Your task to perform on an android device: Go to Wikipedia Image 0: 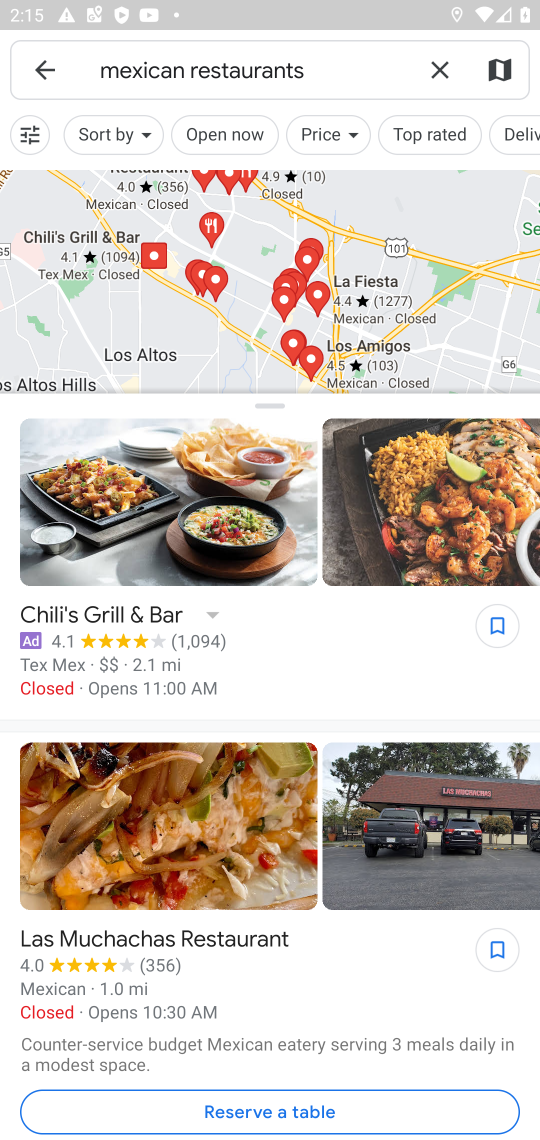
Step 0: press home button
Your task to perform on an android device: Go to Wikipedia Image 1: 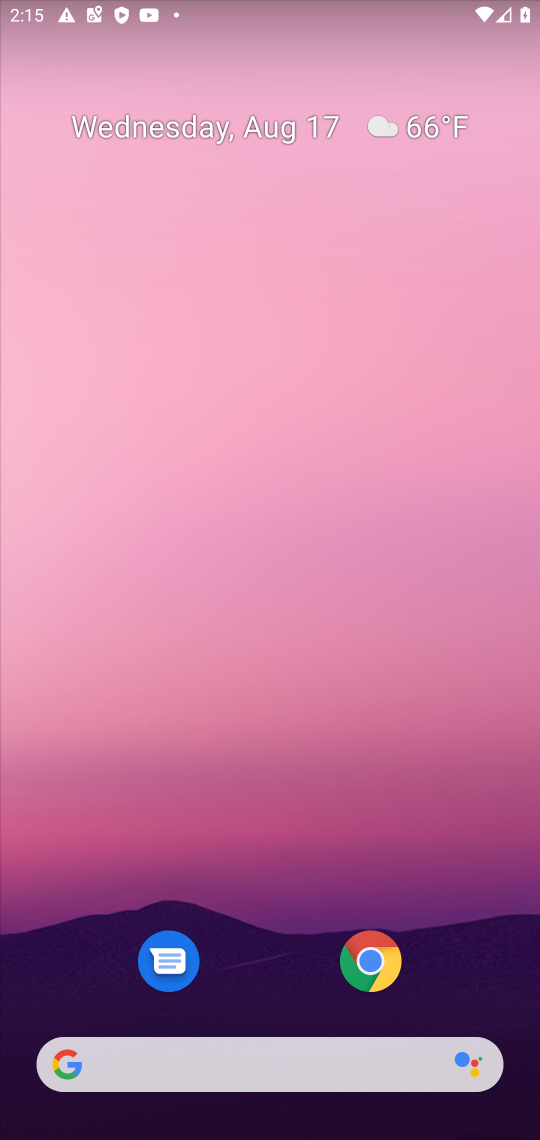
Step 1: click (385, 965)
Your task to perform on an android device: Go to Wikipedia Image 2: 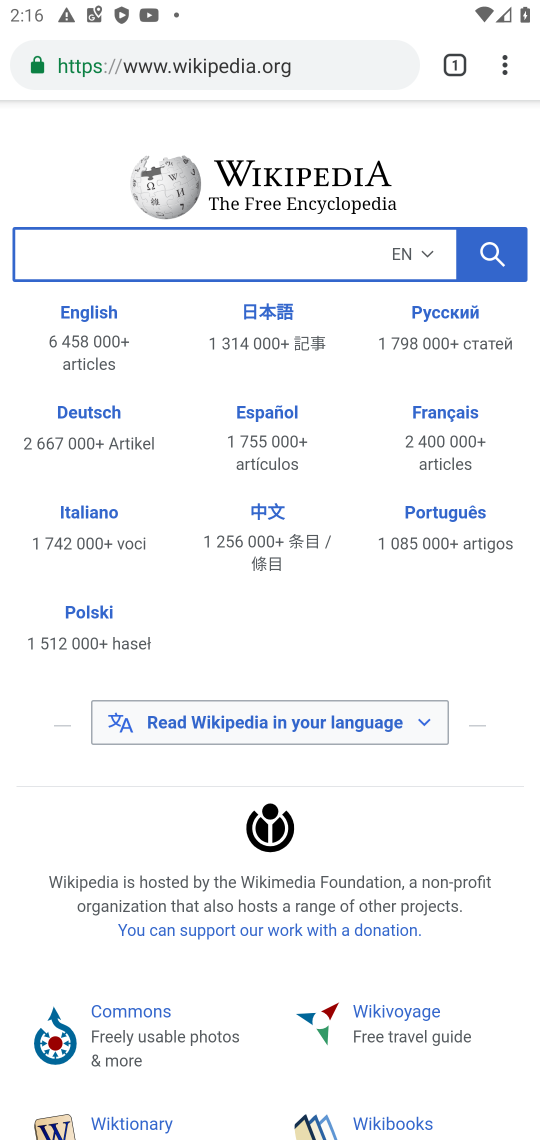
Step 2: task complete